Your task to perform on an android device: Open Youtube and go to "Your channel" Image 0: 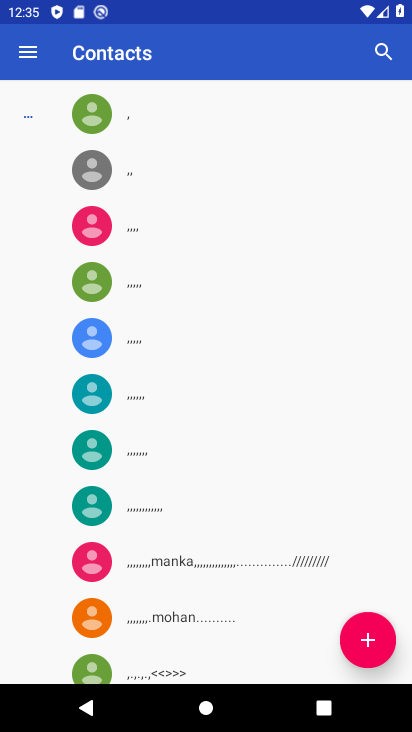
Step 0: press home button
Your task to perform on an android device: Open Youtube and go to "Your channel" Image 1: 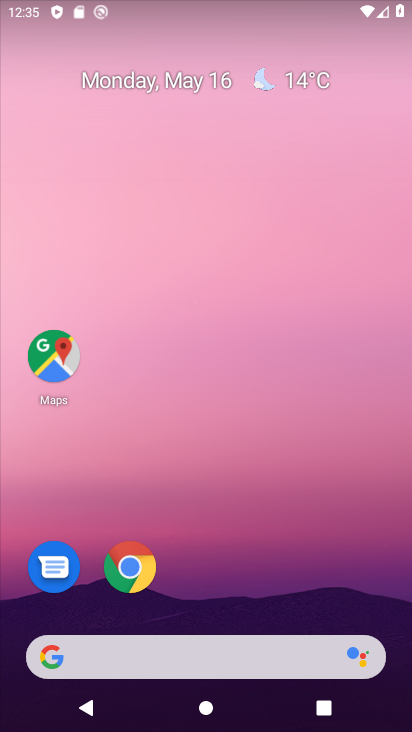
Step 1: drag from (222, 571) to (107, 81)
Your task to perform on an android device: Open Youtube and go to "Your channel" Image 2: 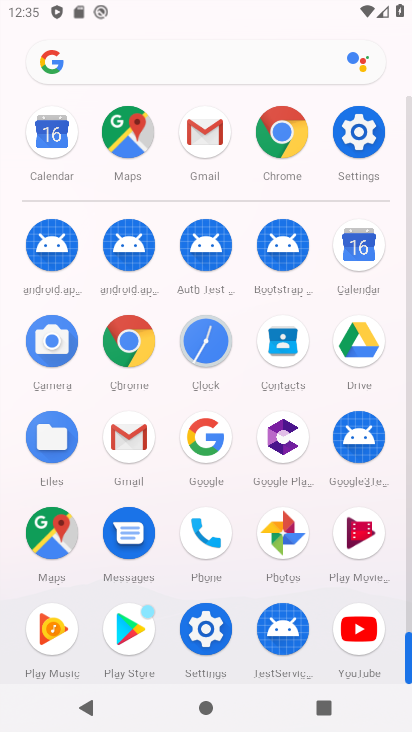
Step 2: click (348, 638)
Your task to perform on an android device: Open Youtube and go to "Your channel" Image 3: 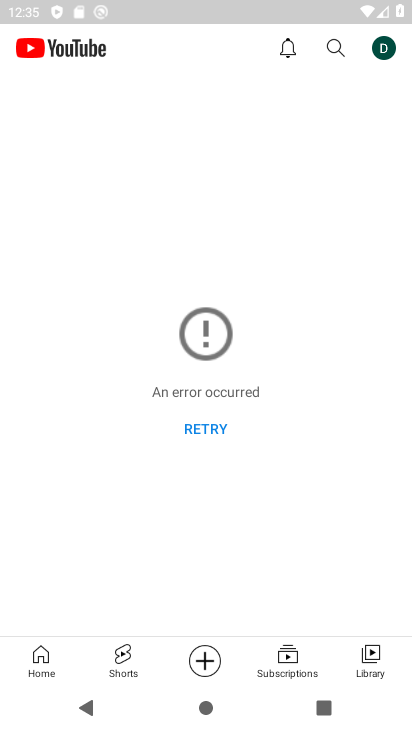
Step 3: click (379, 48)
Your task to perform on an android device: Open Youtube and go to "Your channel" Image 4: 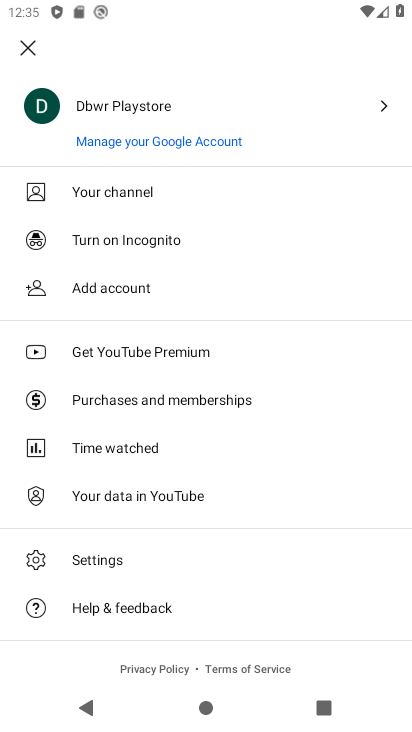
Step 4: click (123, 188)
Your task to perform on an android device: Open Youtube and go to "Your channel" Image 5: 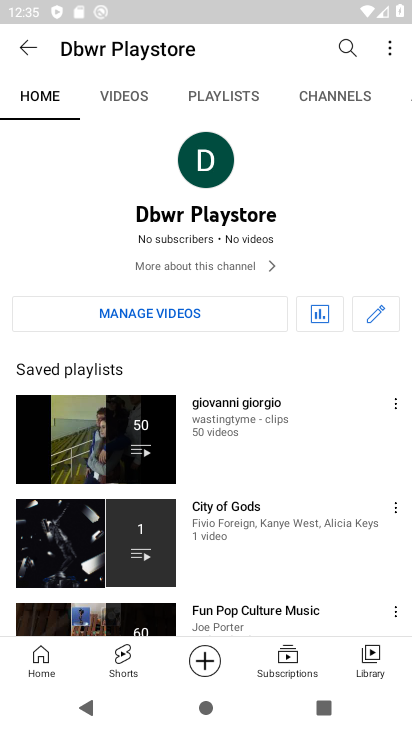
Step 5: task complete